Your task to perform on an android device: Go to Yahoo.com Image 0: 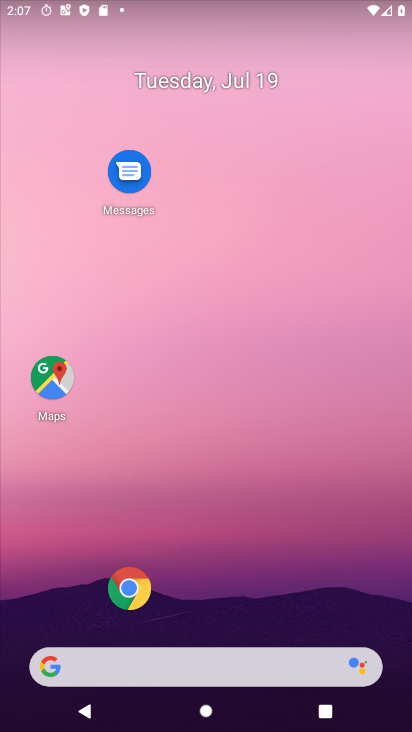
Step 0: click (117, 676)
Your task to perform on an android device: Go to Yahoo.com Image 1: 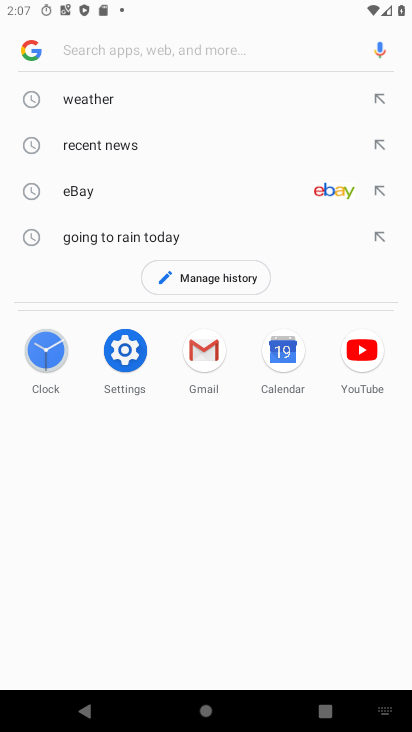
Step 1: type " Yahoo.com"
Your task to perform on an android device: Go to Yahoo.com Image 2: 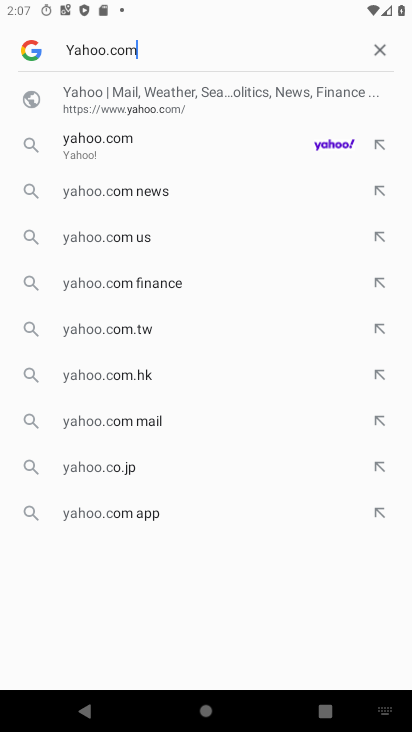
Step 2: type ""
Your task to perform on an android device: Go to Yahoo.com Image 3: 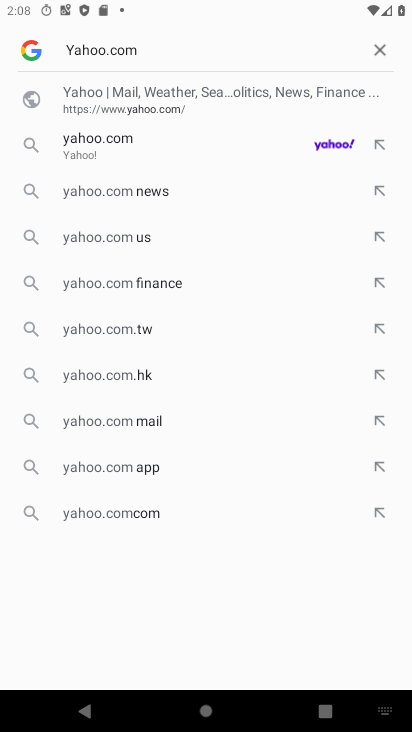
Step 3: click (137, 150)
Your task to perform on an android device: Go to Yahoo.com Image 4: 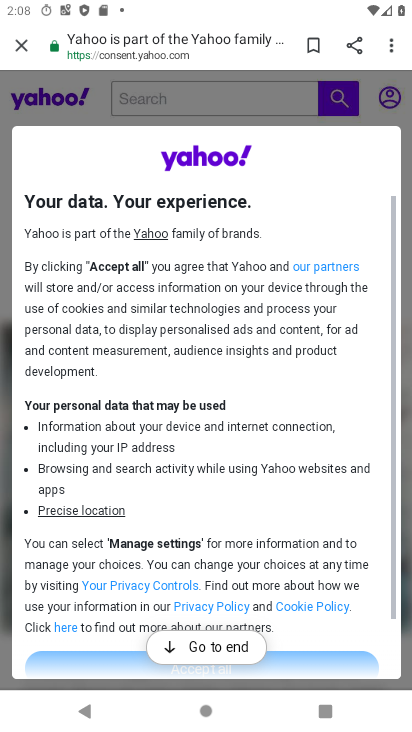
Step 4: task complete